Your task to perform on an android device: turn on sleep mode Image 0: 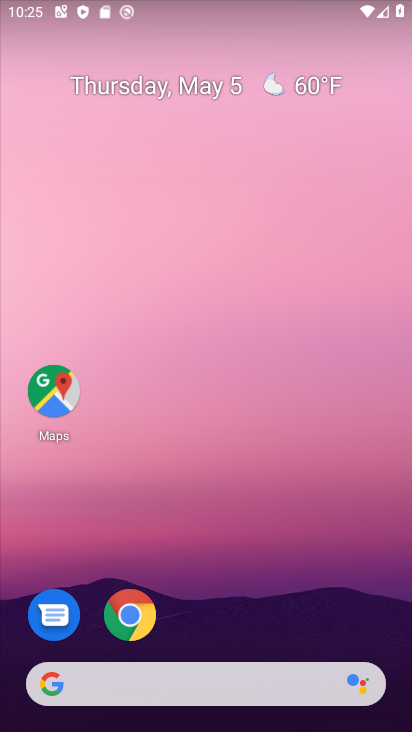
Step 0: drag from (233, 510) to (280, 98)
Your task to perform on an android device: turn on sleep mode Image 1: 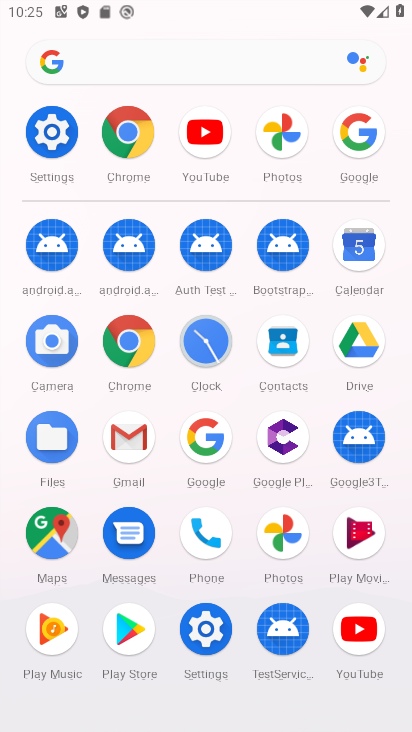
Step 1: click (52, 123)
Your task to perform on an android device: turn on sleep mode Image 2: 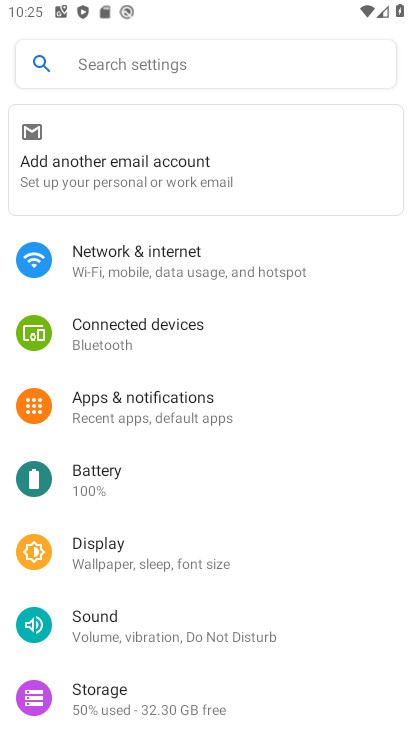
Step 2: click (147, 556)
Your task to perform on an android device: turn on sleep mode Image 3: 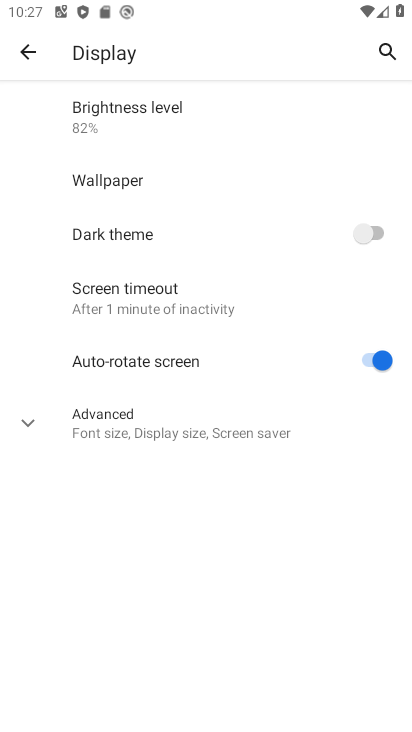
Step 3: task complete